Your task to perform on an android device: What's the weather going to be this weekend? Image 0: 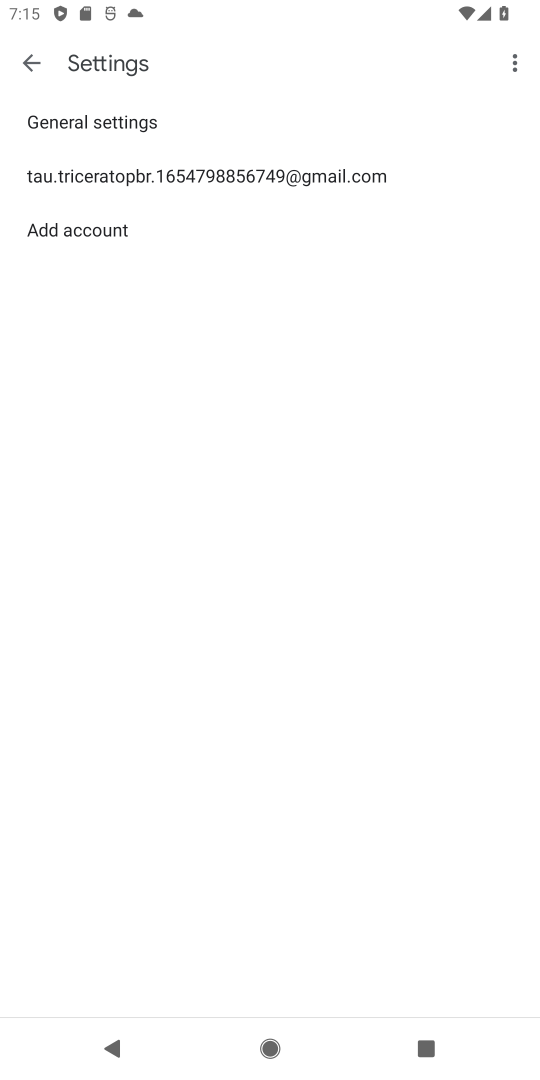
Step 0: press back button
Your task to perform on an android device: What's the weather going to be this weekend? Image 1: 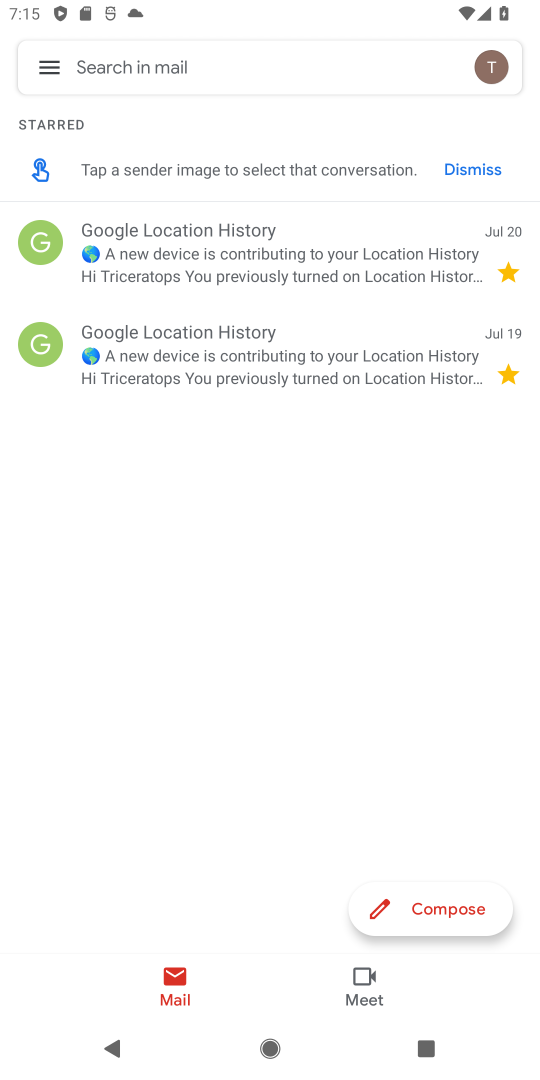
Step 1: press back button
Your task to perform on an android device: What's the weather going to be this weekend? Image 2: 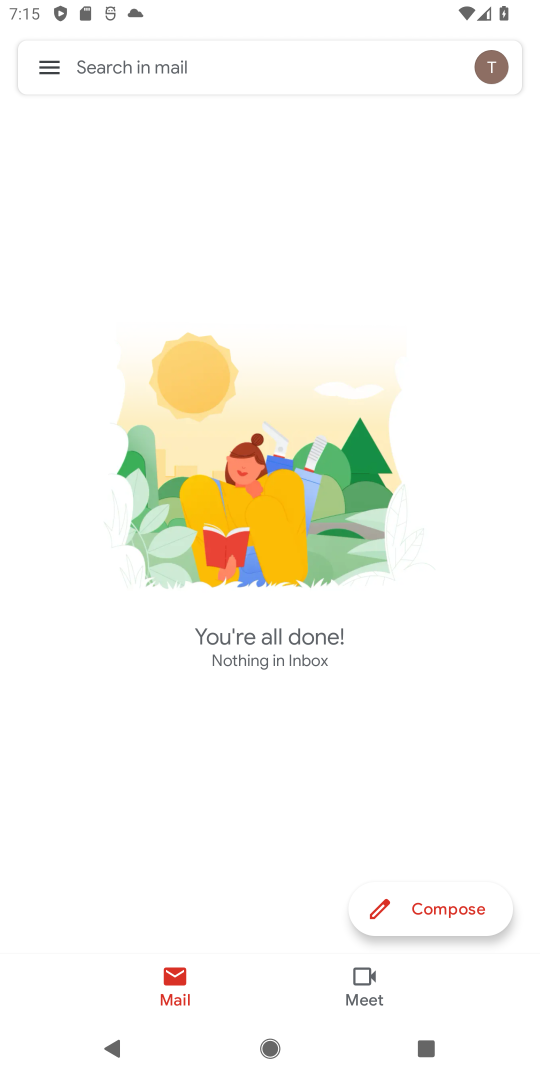
Step 2: press back button
Your task to perform on an android device: What's the weather going to be this weekend? Image 3: 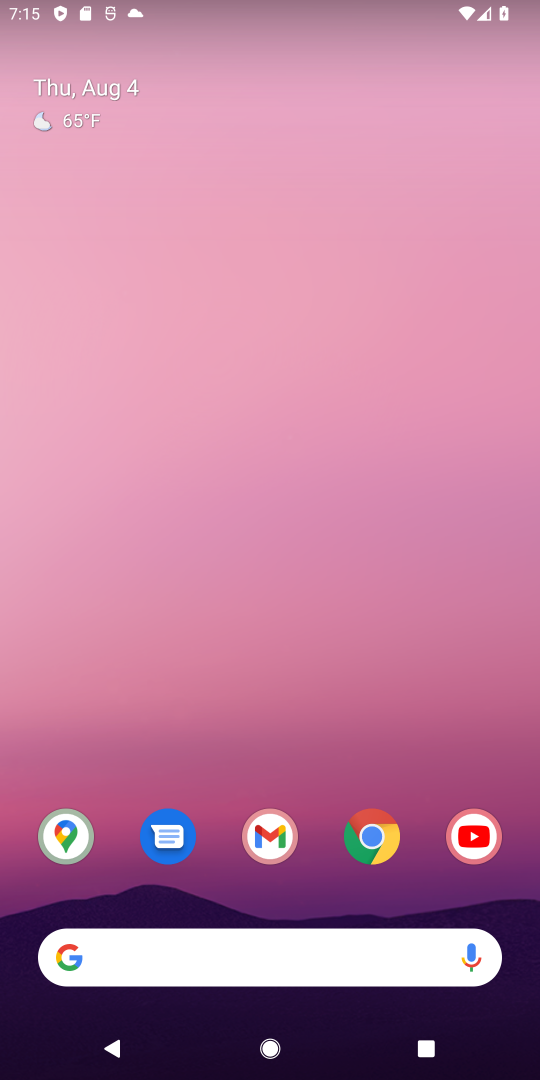
Step 3: click (201, 959)
Your task to perform on an android device: What's the weather going to be this weekend? Image 4: 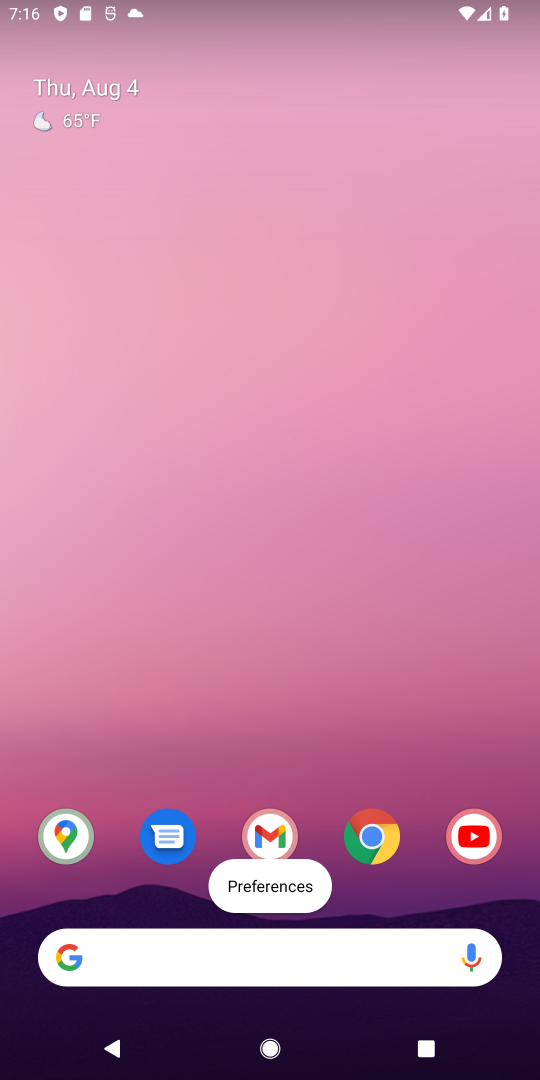
Step 4: click (210, 966)
Your task to perform on an android device: What's the weather going to be this weekend? Image 5: 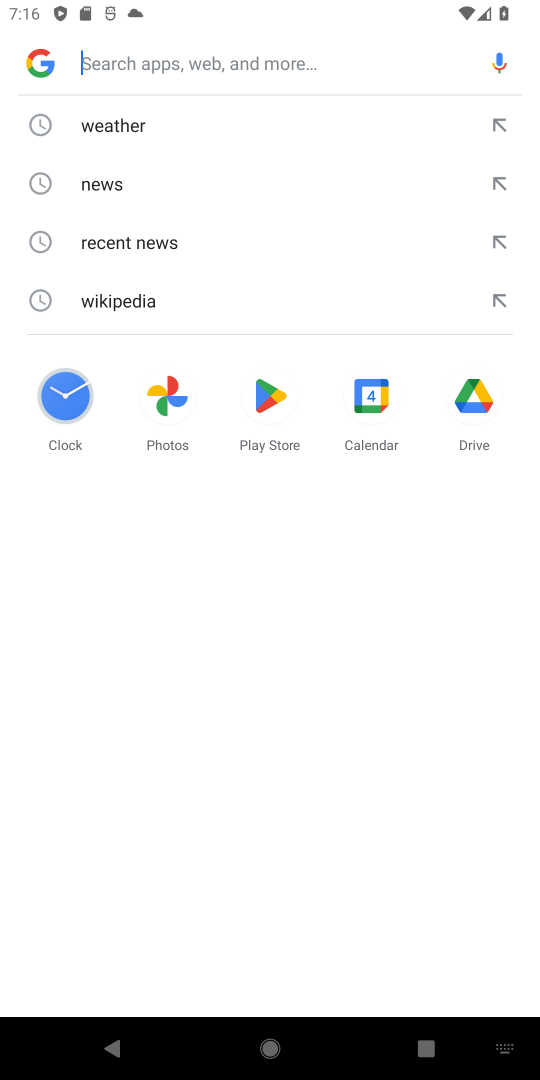
Step 5: click (115, 116)
Your task to perform on an android device: What's the weather going to be this weekend? Image 6: 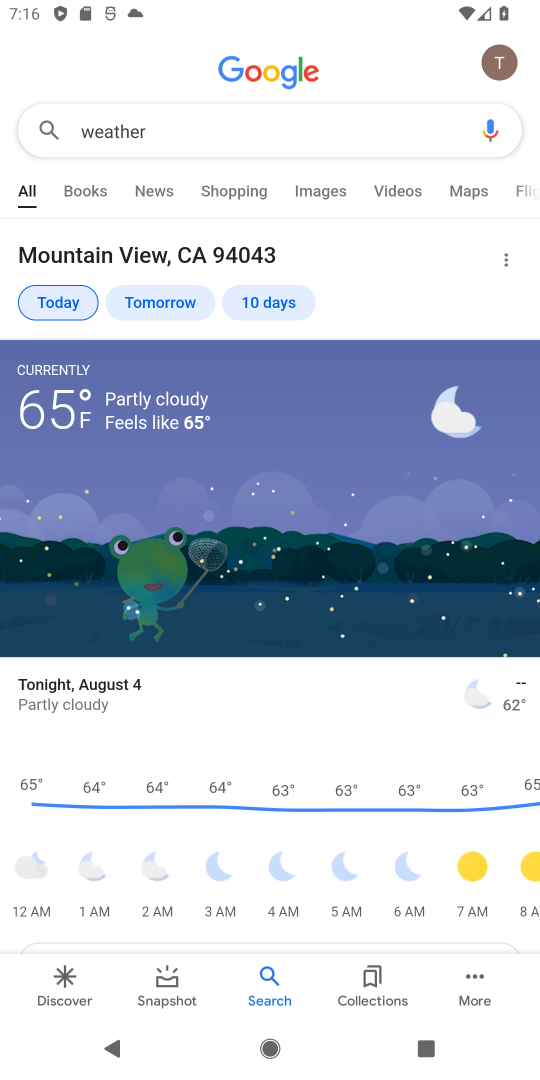
Step 6: click (270, 302)
Your task to perform on an android device: What's the weather going to be this weekend? Image 7: 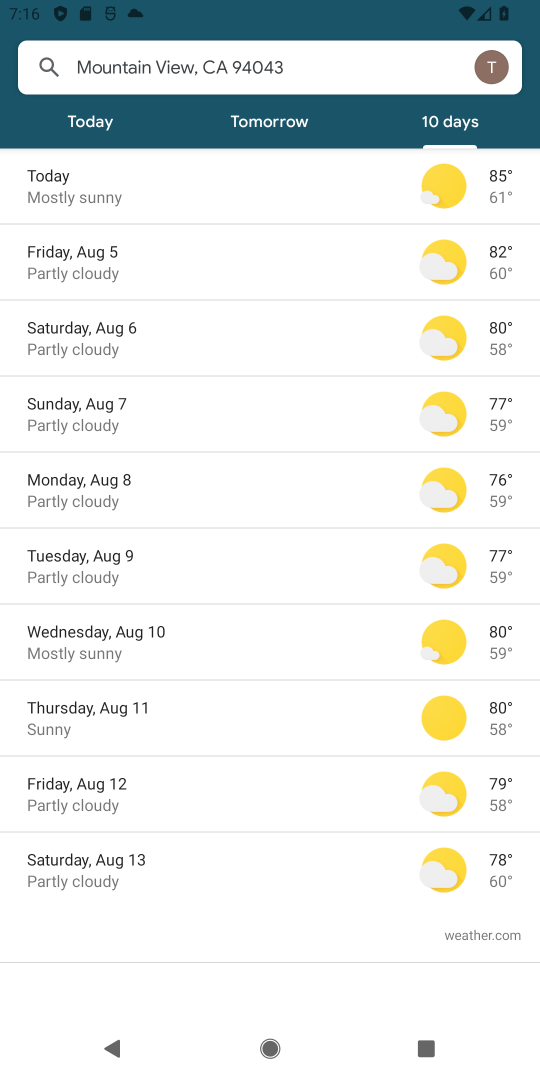
Step 7: task complete